Your task to perform on an android device: turn on sleep mode Image 0: 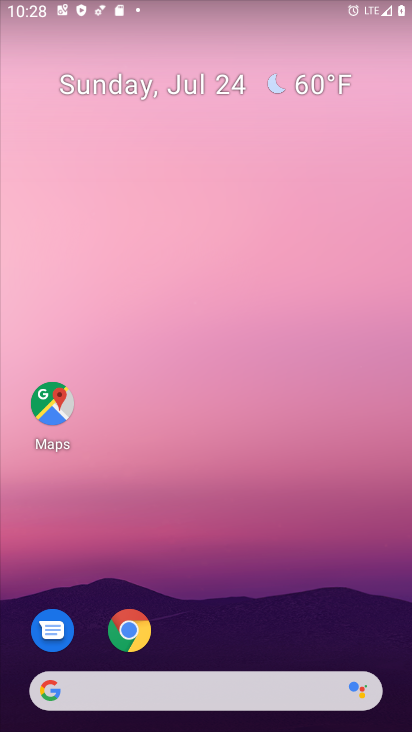
Step 0: drag from (219, 666) to (291, 82)
Your task to perform on an android device: turn on sleep mode Image 1: 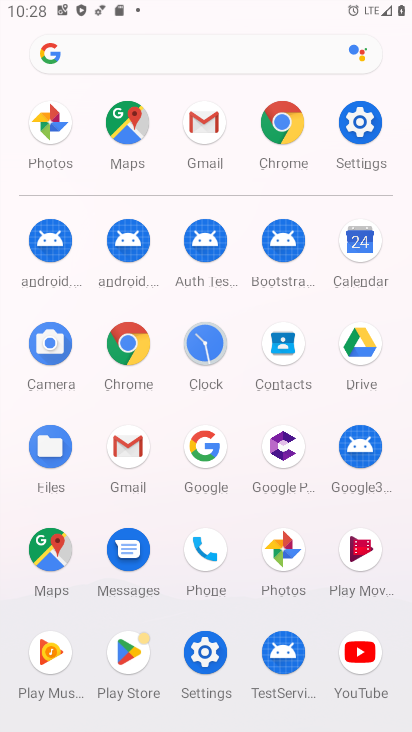
Step 1: click (210, 664)
Your task to perform on an android device: turn on sleep mode Image 2: 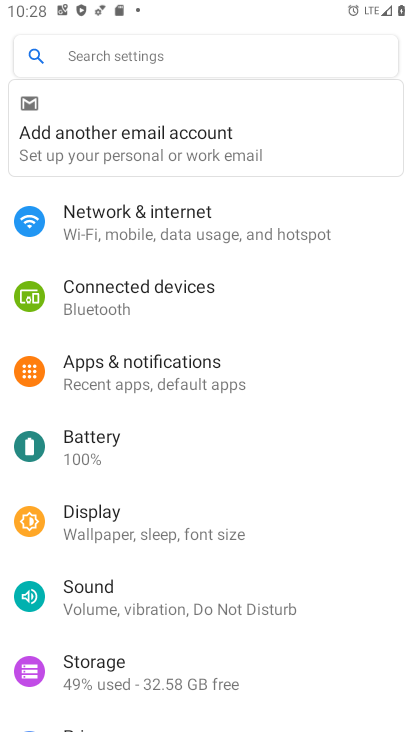
Step 2: click (197, 51)
Your task to perform on an android device: turn on sleep mode Image 3: 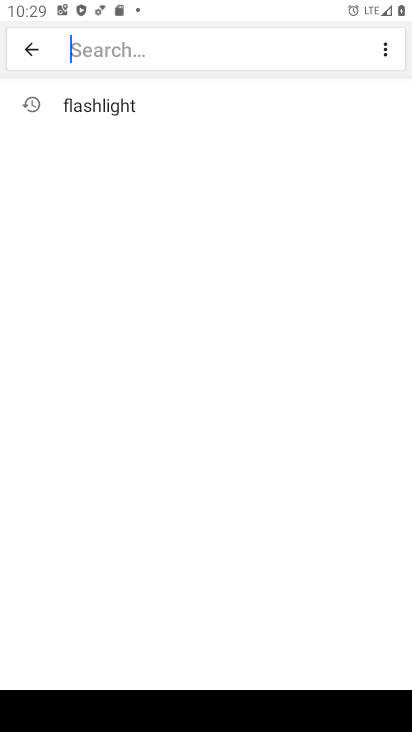
Step 3: type "sleep mode"
Your task to perform on an android device: turn on sleep mode Image 4: 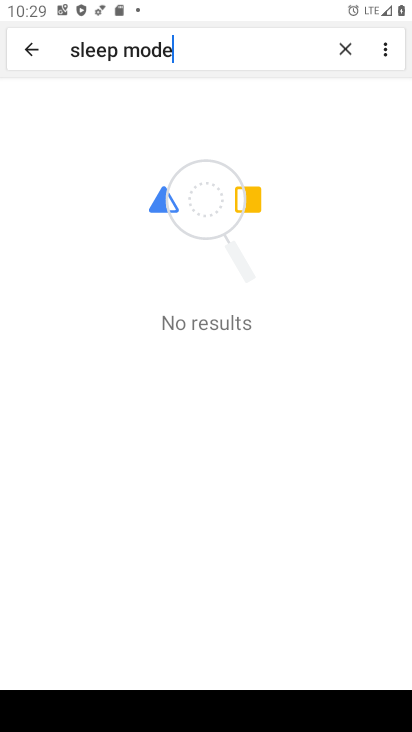
Step 4: task complete